Your task to perform on an android device: Go to network settings Image 0: 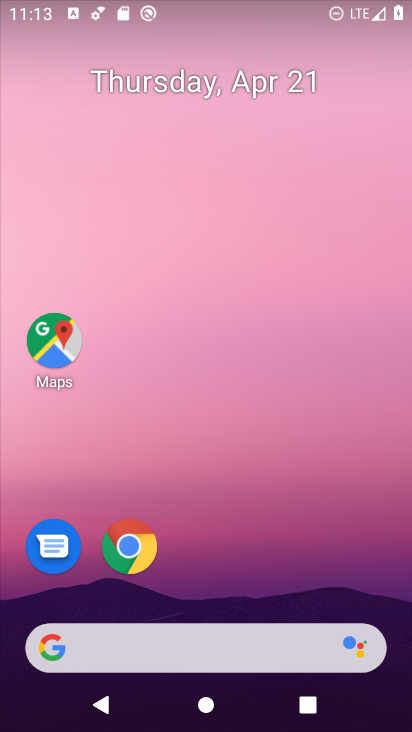
Step 0: drag from (330, 476) to (299, 167)
Your task to perform on an android device: Go to network settings Image 1: 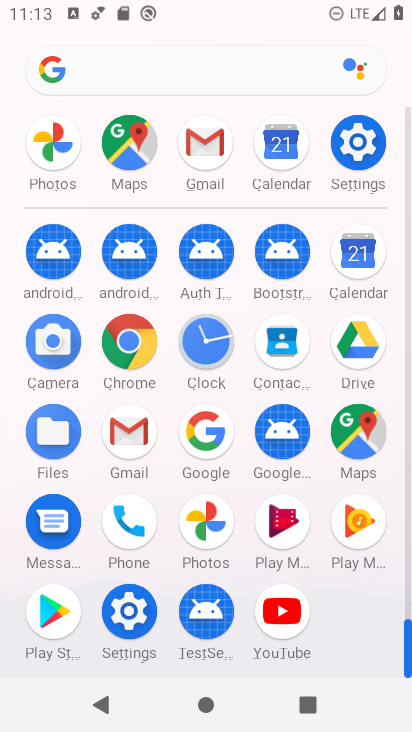
Step 1: click (131, 612)
Your task to perform on an android device: Go to network settings Image 2: 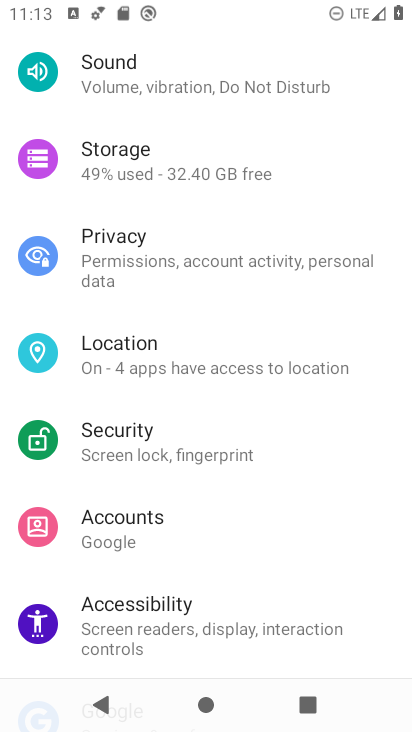
Step 2: drag from (335, 276) to (340, 532)
Your task to perform on an android device: Go to network settings Image 3: 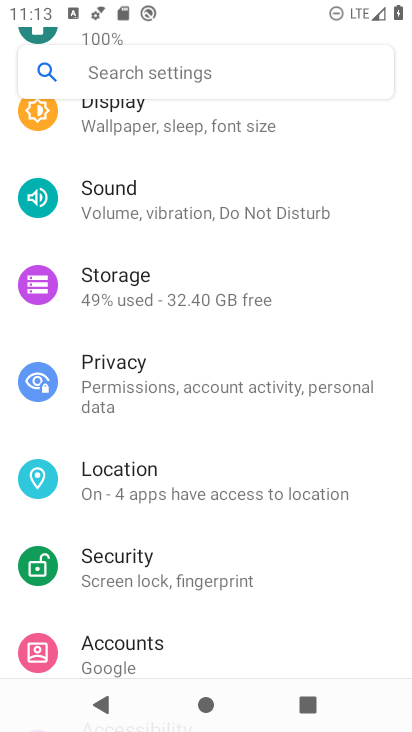
Step 3: drag from (360, 220) to (356, 582)
Your task to perform on an android device: Go to network settings Image 4: 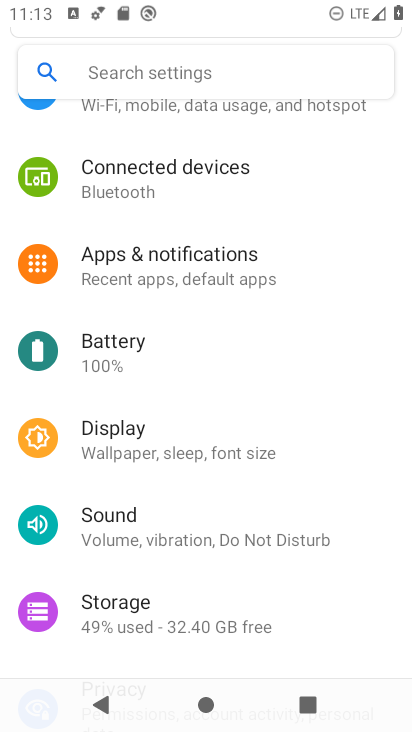
Step 4: drag from (341, 208) to (330, 496)
Your task to perform on an android device: Go to network settings Image 5: 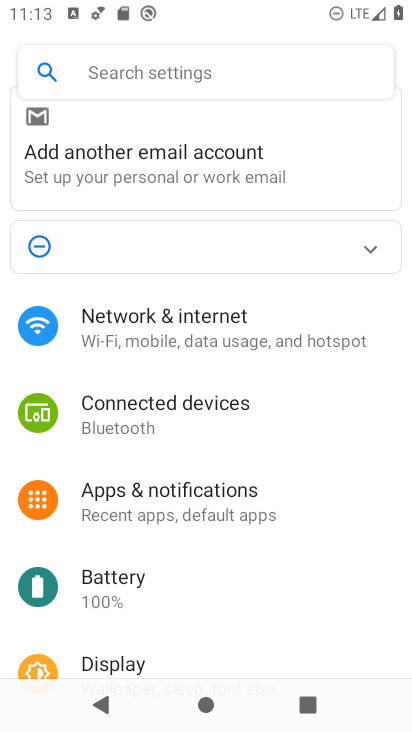
Step 5: click (134, 325)
Your task to perform on an android device: Go to network settings Image 6: 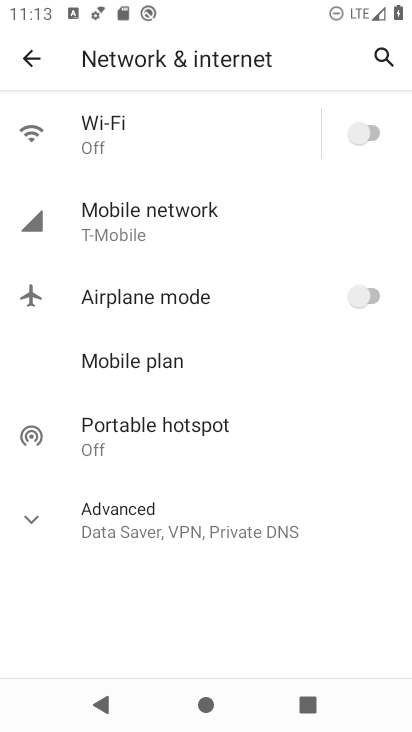
Step 6: click (131, 237)
Your task to perform on an android device: Go to network settings Image 7: 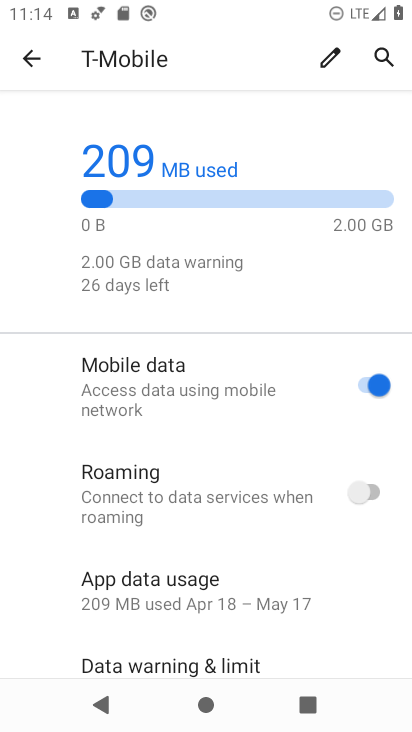
Step 7: task complete